Your task to perform on an android device: turn smart compose on in the gmail app Image 0: 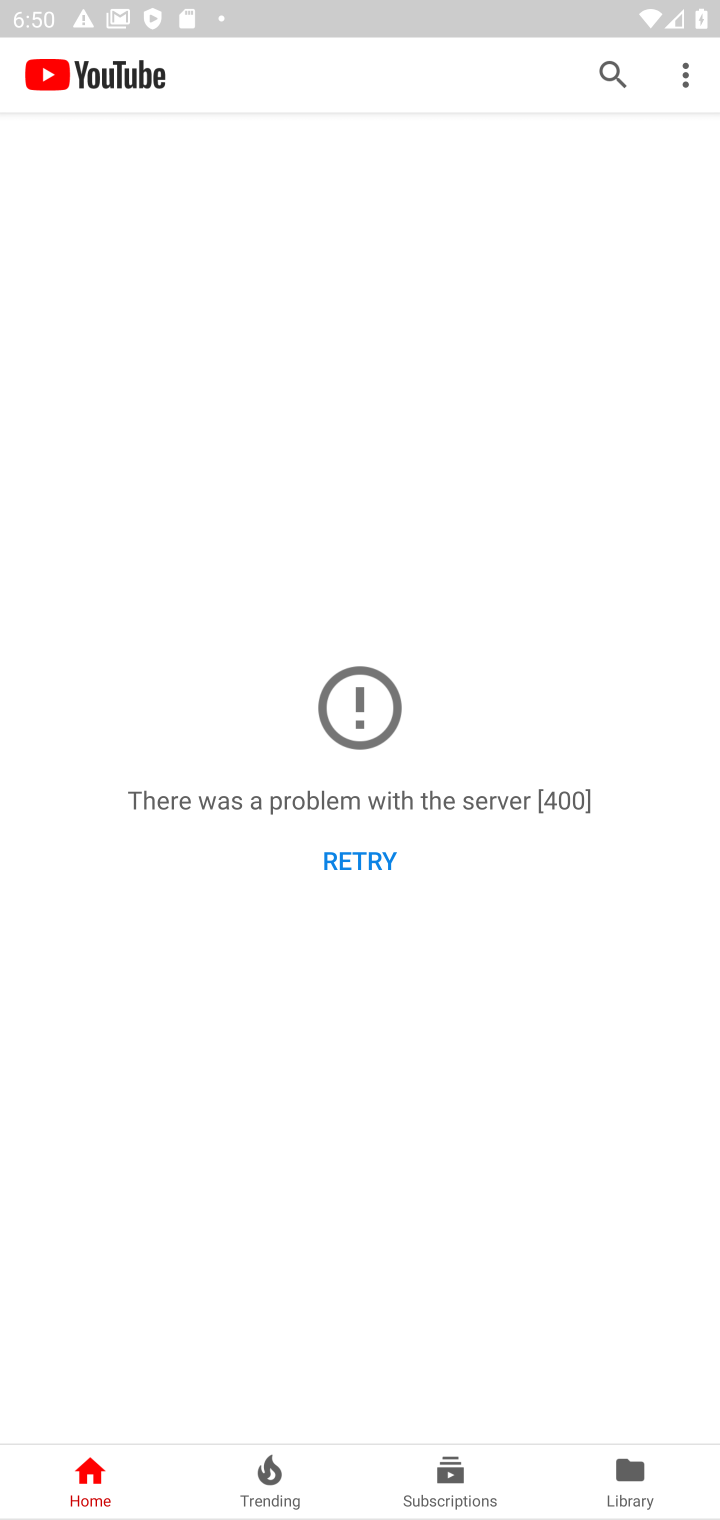
Step 0: press home button
Your task to perform on an android device: turn smart compose on in the gmail app Image 1: 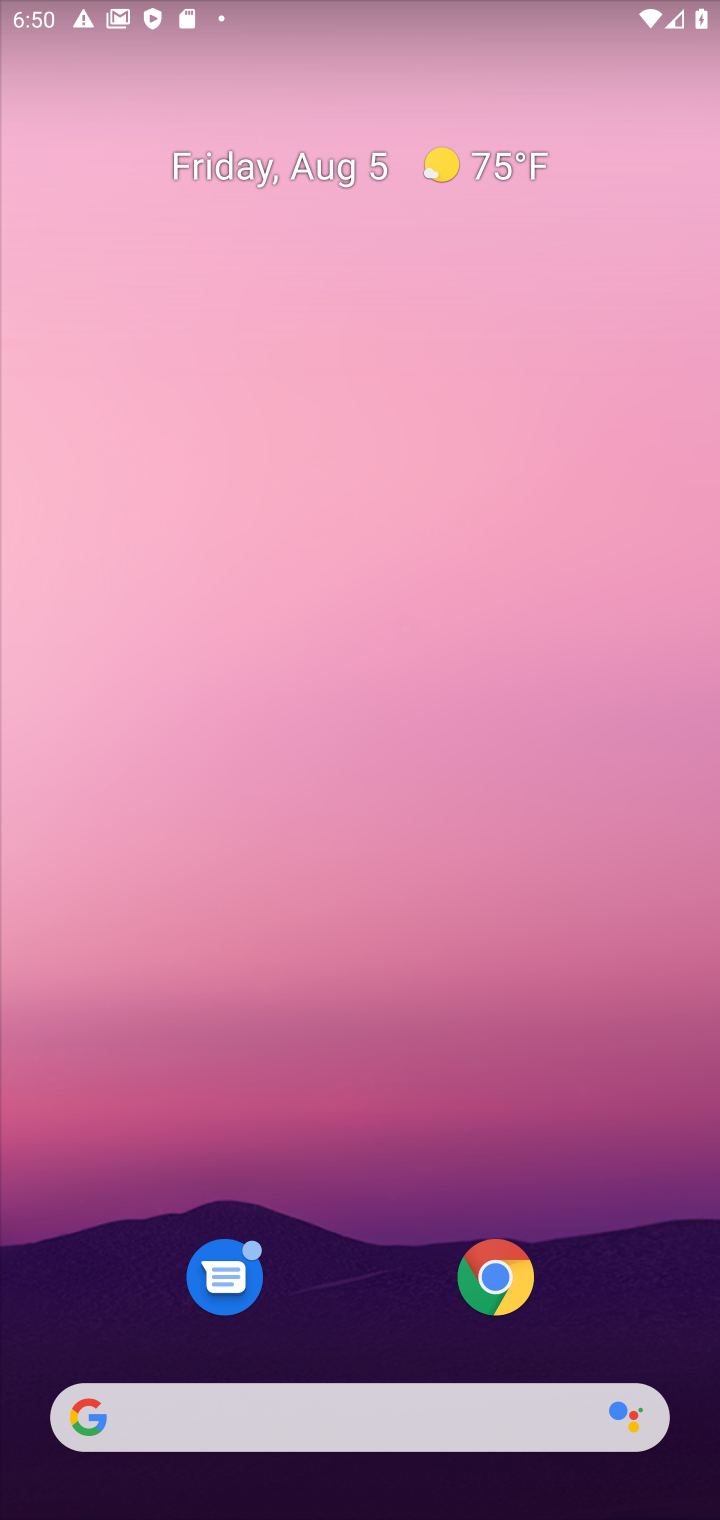
Step 1: drag from (372, 1211) to (424, 0)
Your task to perform on an android device: turn smart compose on in the gmail app Image 2: 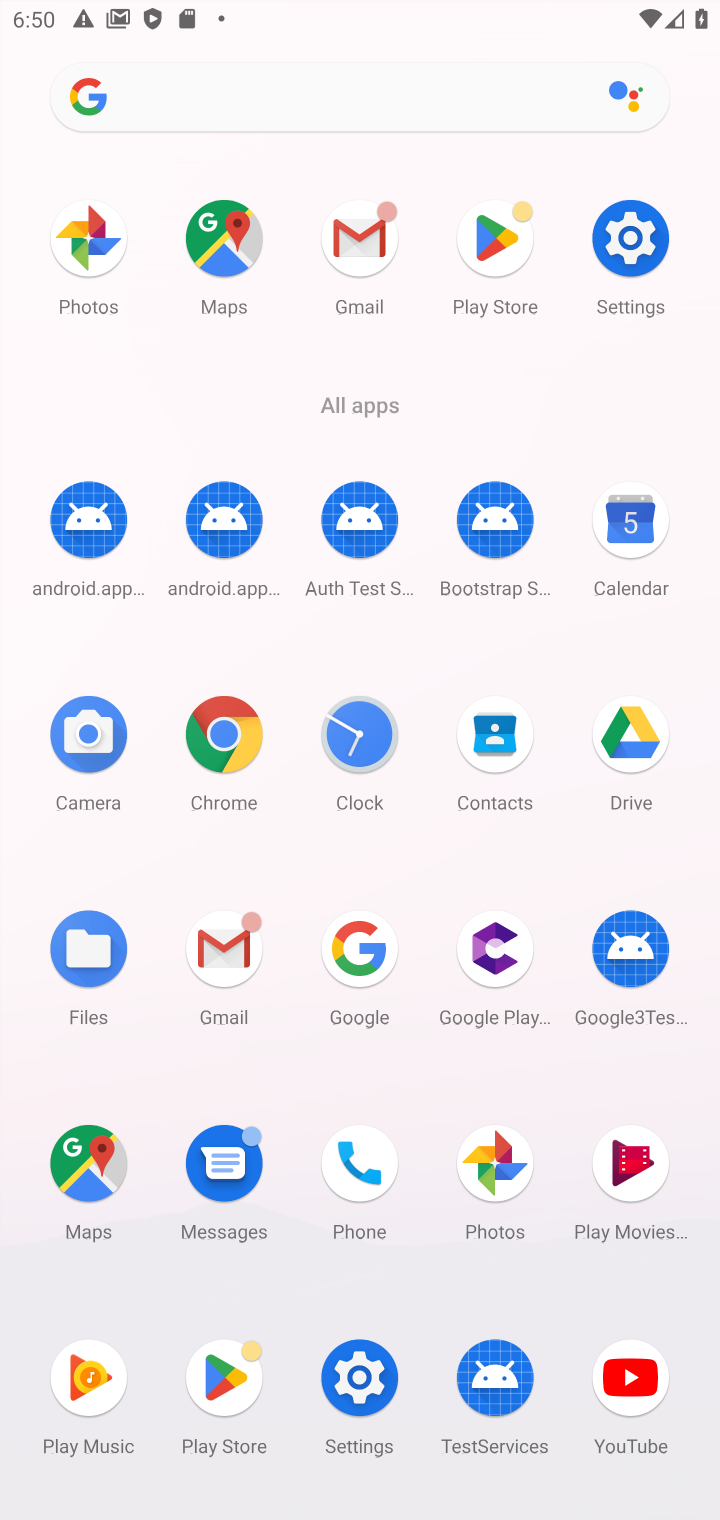
Step 2: click (366, 241)
Your task to perform on an android device: turn smart compose on in the gmail app Image 3: 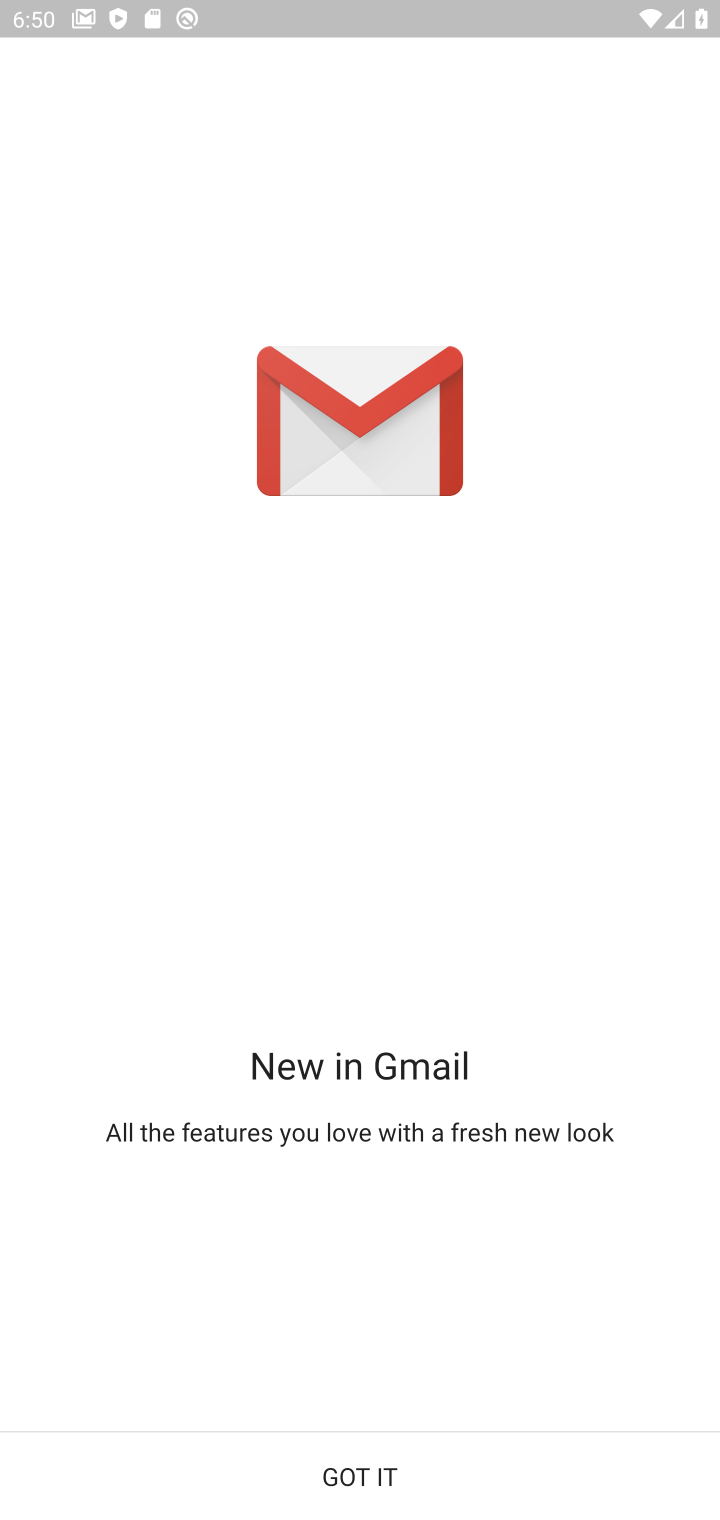
Step 3: click (373, 1465)
Your task to perform on an android device: turn smart compose on in the gmail app Image 4: 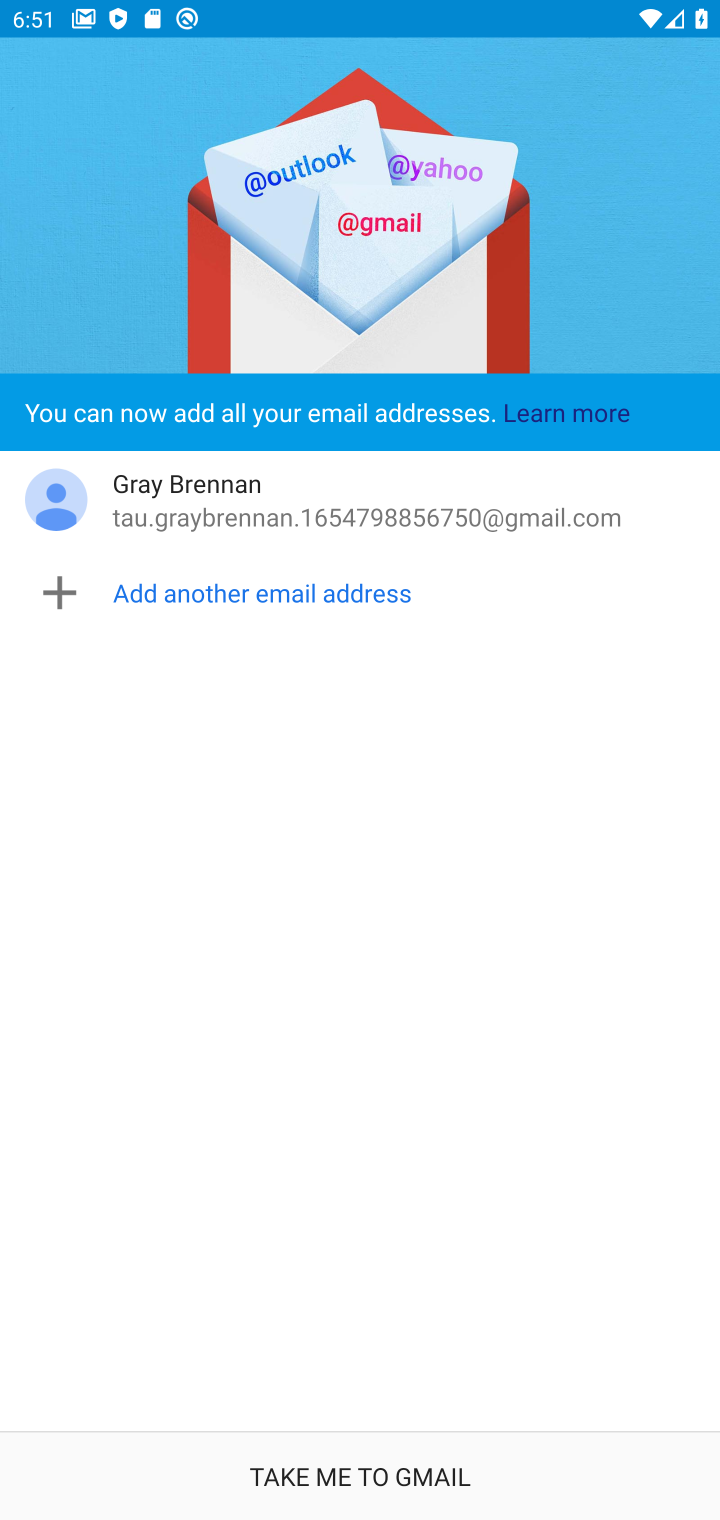
Step 4: click (373, 1465)
Your task to perform on an android device: turn smart compose on in the gmail app Image 5: 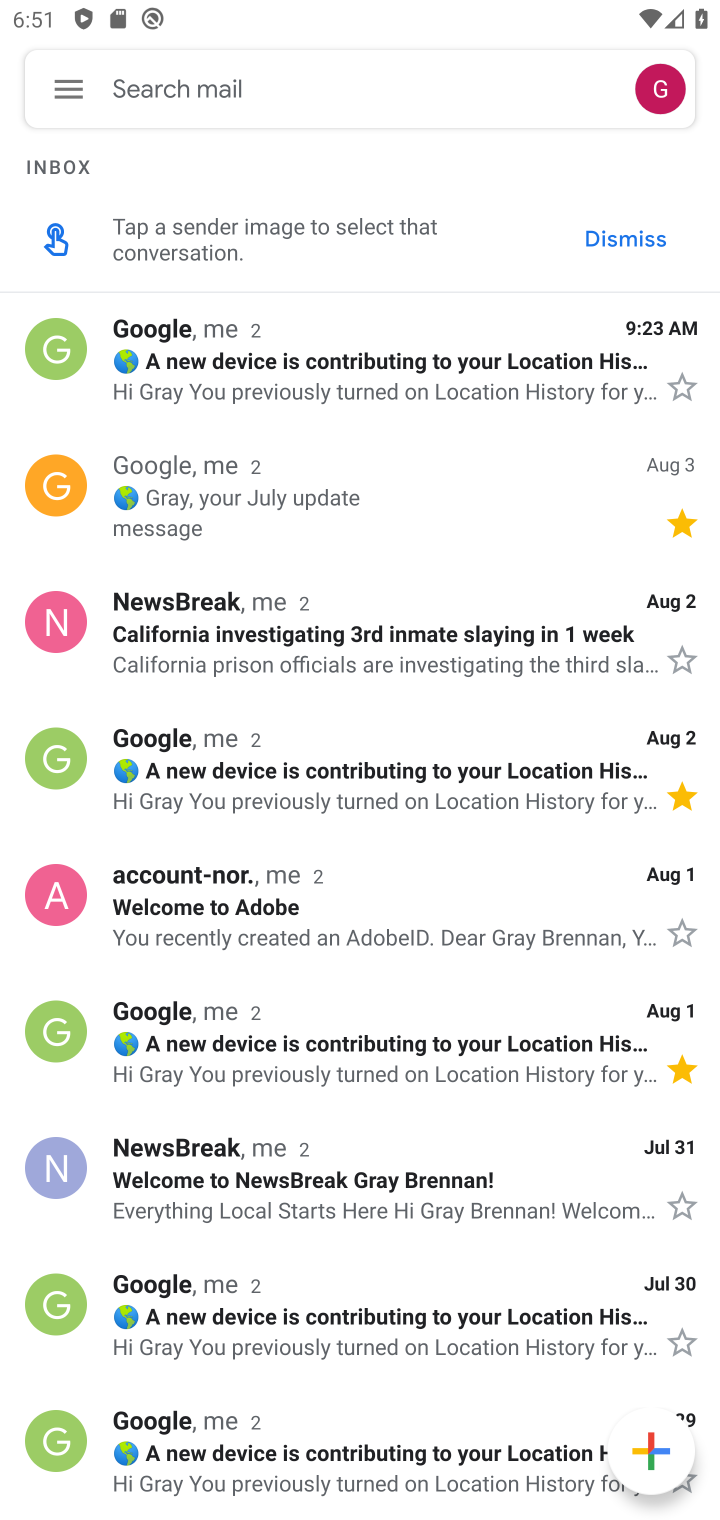
Step 5: click (66, 91)
Your task to perform on an android device: turn smart compose on in the gmail app Image 6: 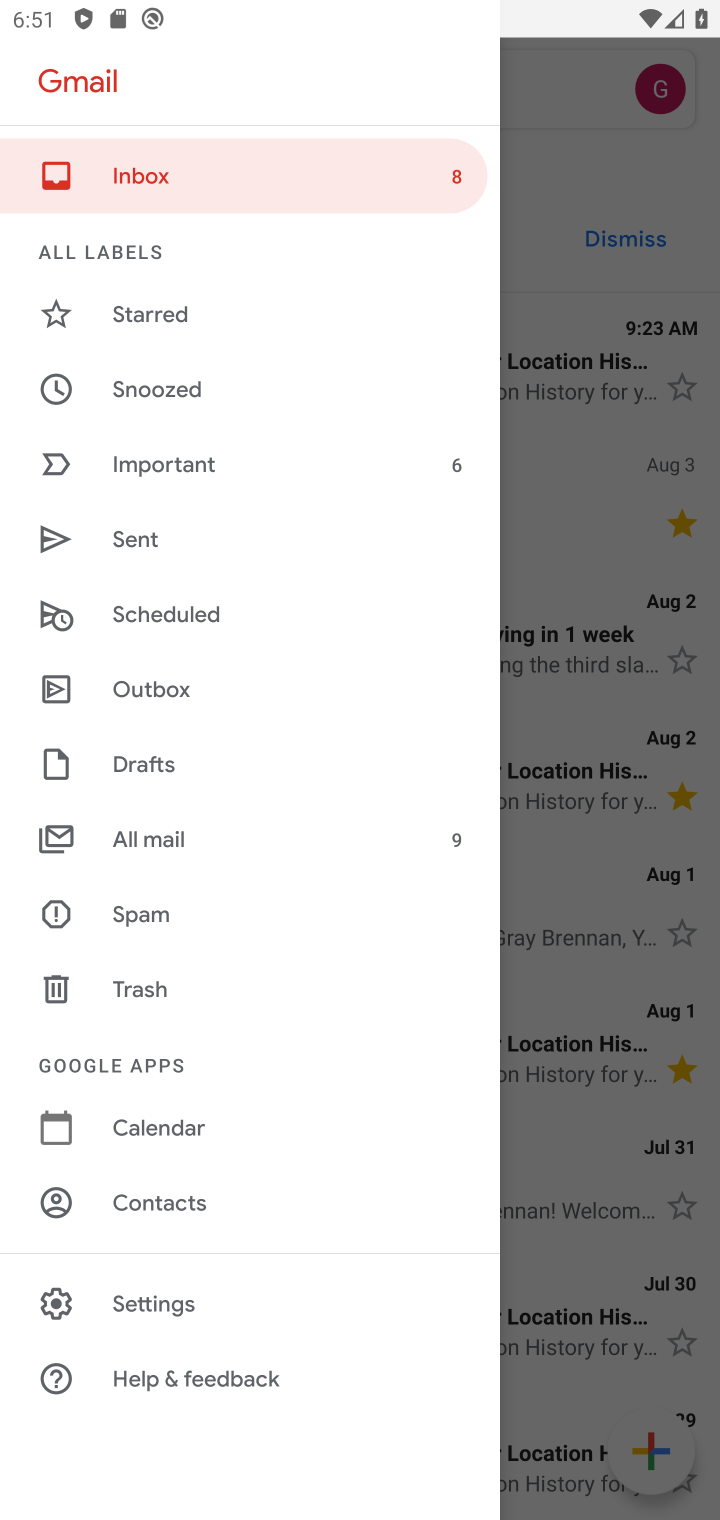
Step 6: click (175, 1300)
Your task to perform on an android device: turn smart compose on in the gmail app Image 7: 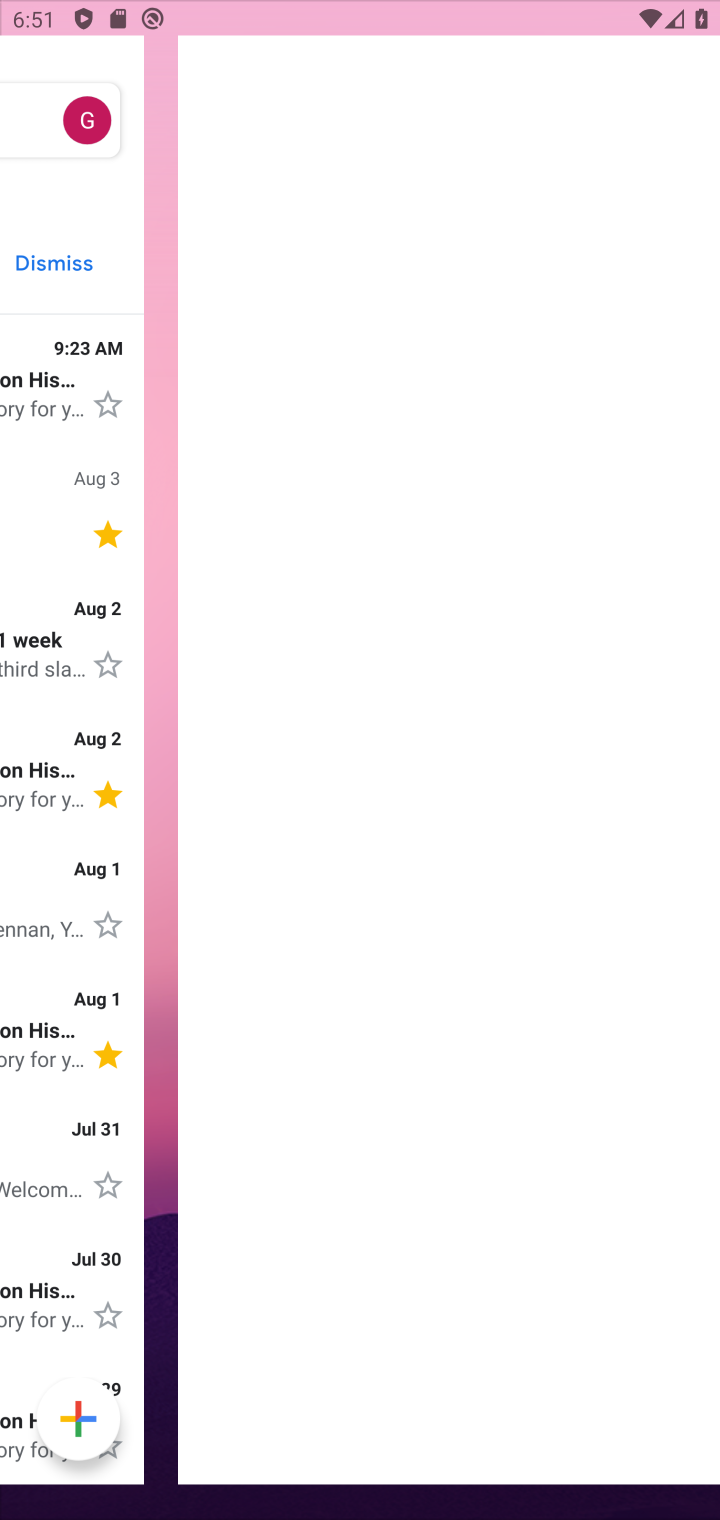
Step 7: click (175, 1300)
Your task to perform on an android device: turn smart compose on in the gmail app Image 8: 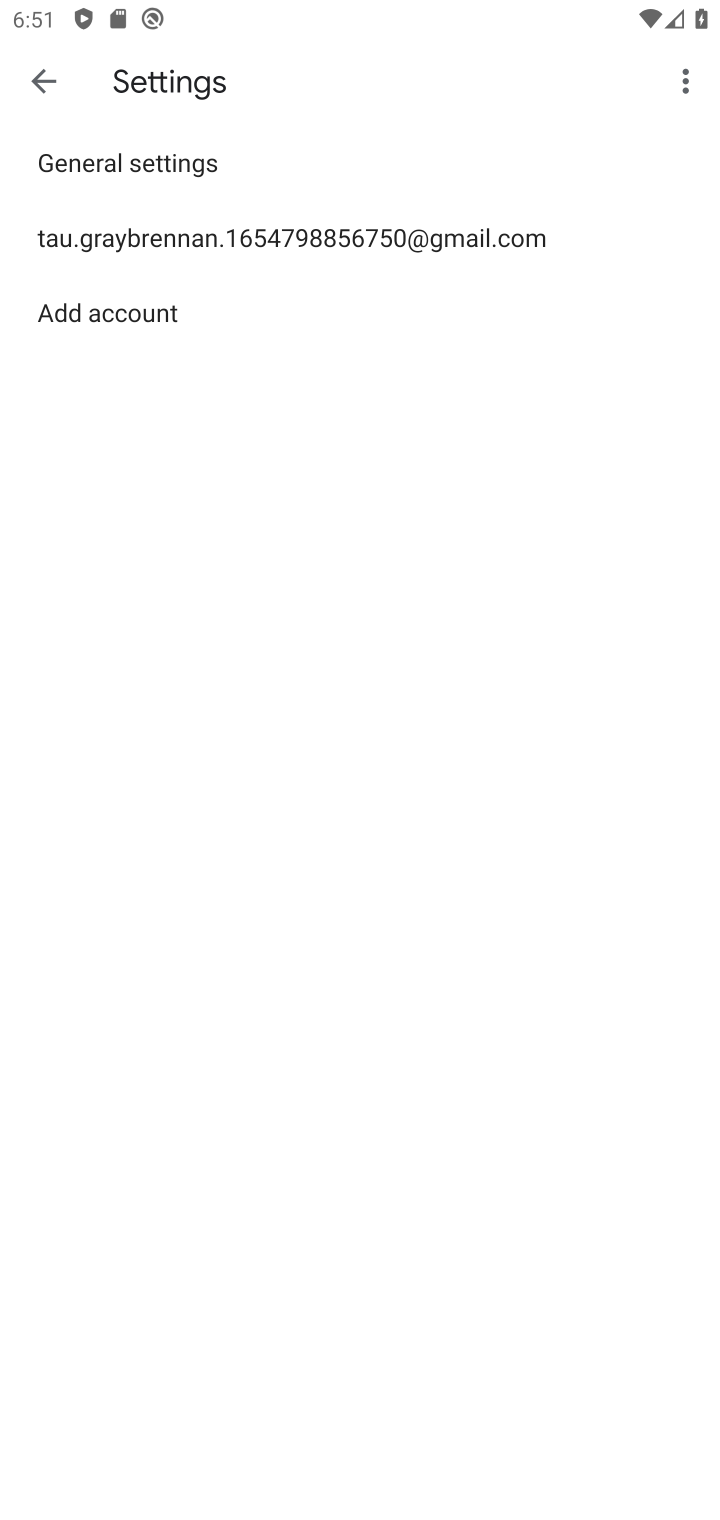
Step 8: click (479, 230)
Your task to perform on an android device: turn smart compose on in the gmail app Image 9: 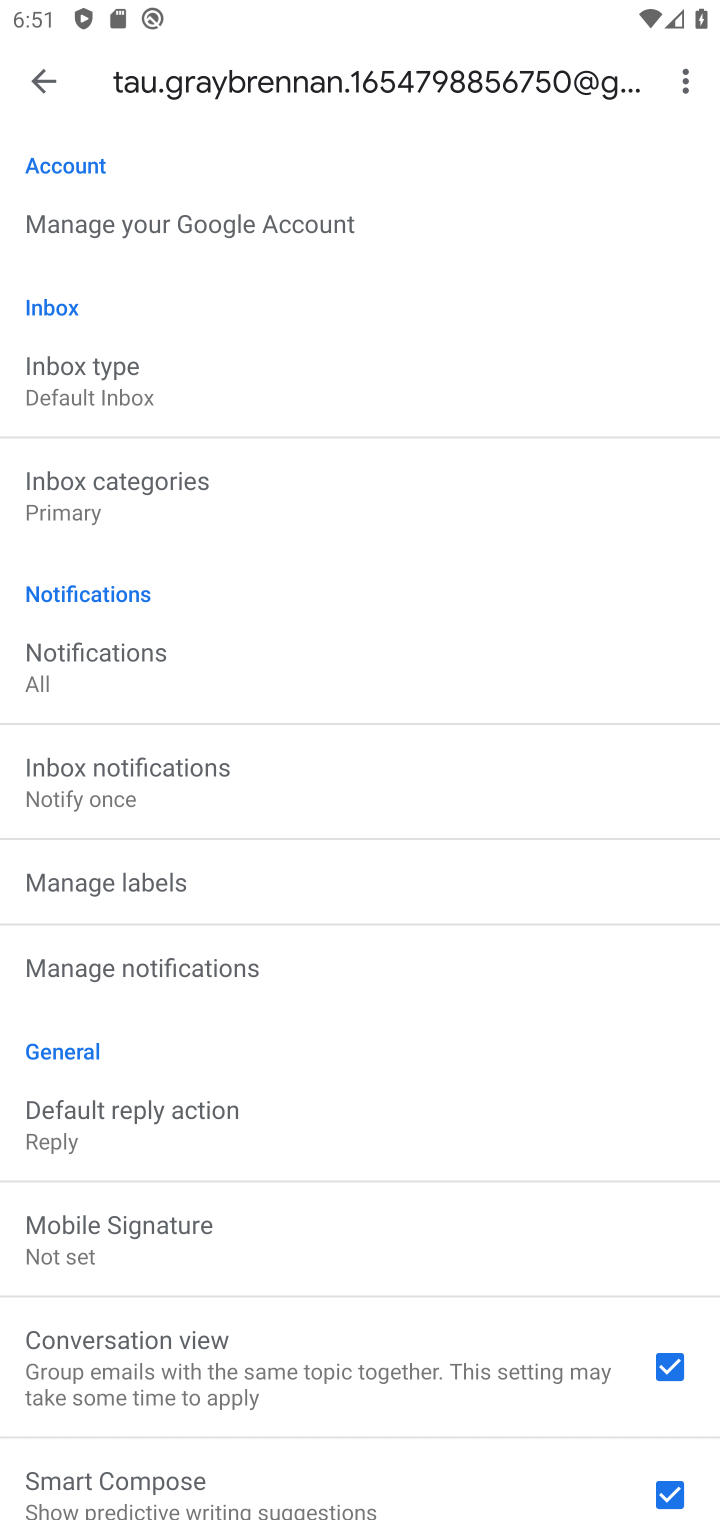
Step 9: task complete